Your task to perform on an android device: open app "Truecaller" (install if not already installed) Image 0: 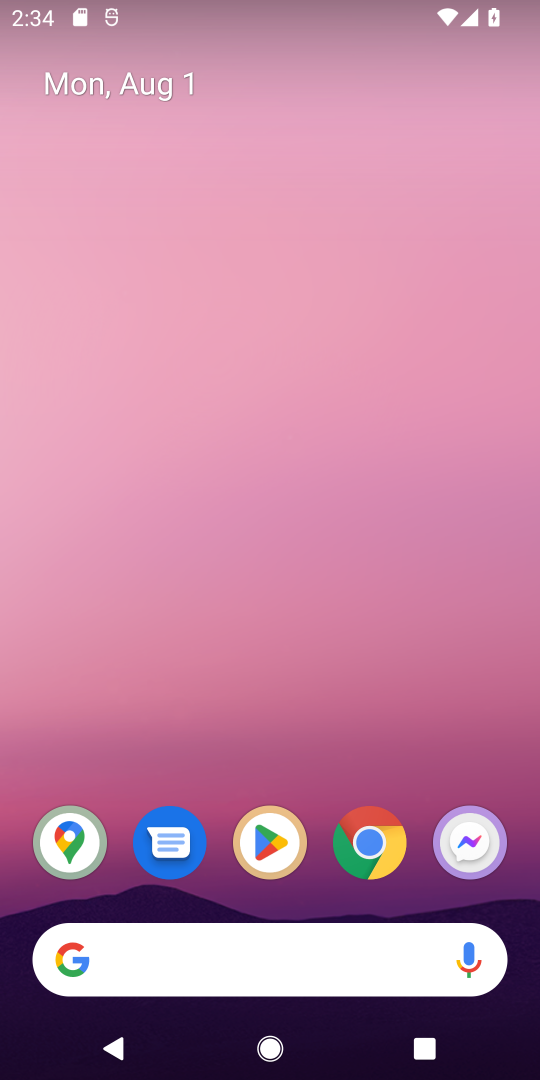
Step 0: click (288, 863)
Your task to perform on an android device: open app "Truecaller" (install if not already installed) Image 1: 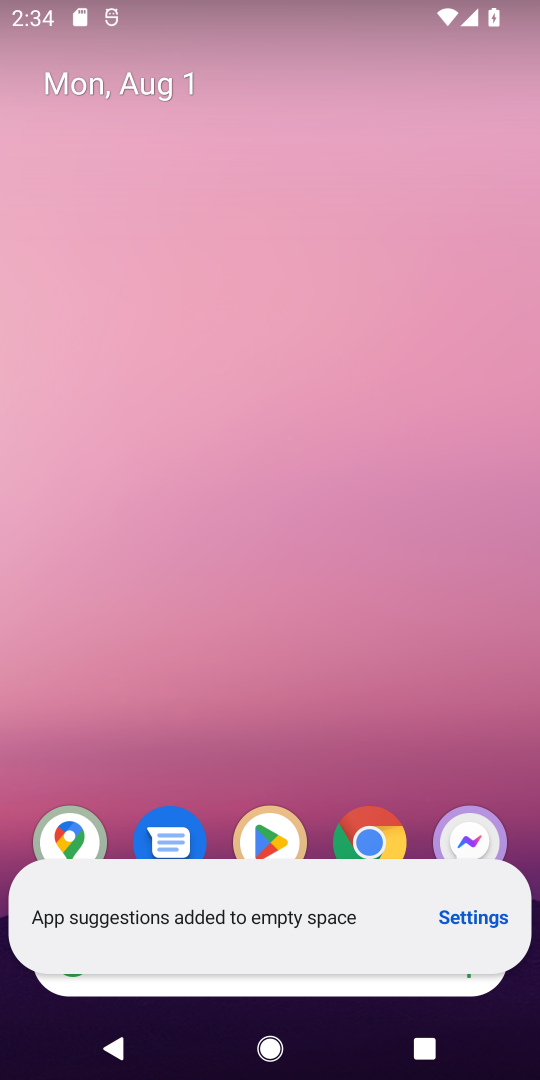
Step 1: click (274, 834)
Your task to perform on an android device: open app "Truecaller" (install if not already installed) Image 2: 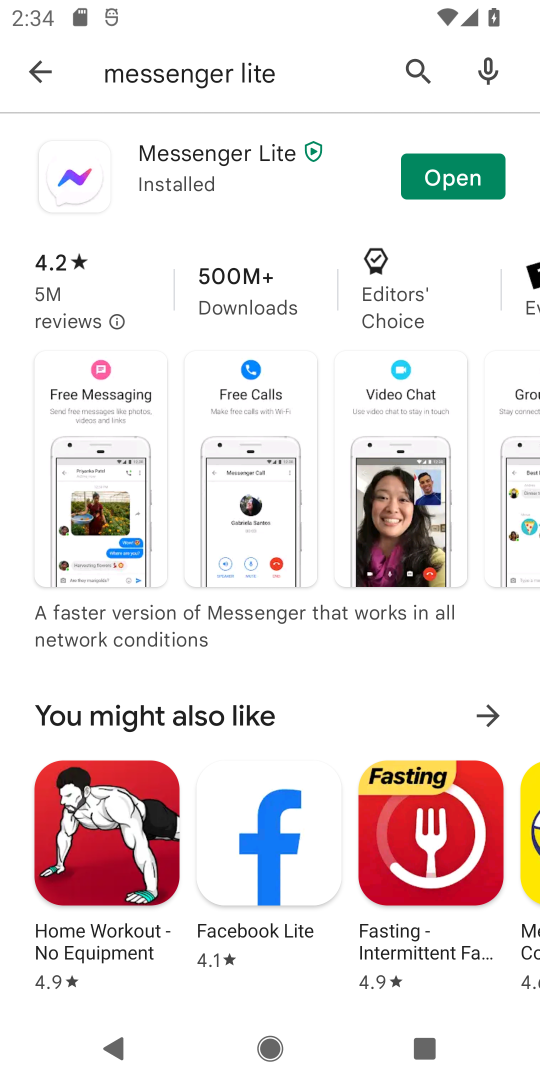
Step 2: click (208, 75)
Your task to perform on an android device: open app "Truecaller" (install if not already installed) Image 3: 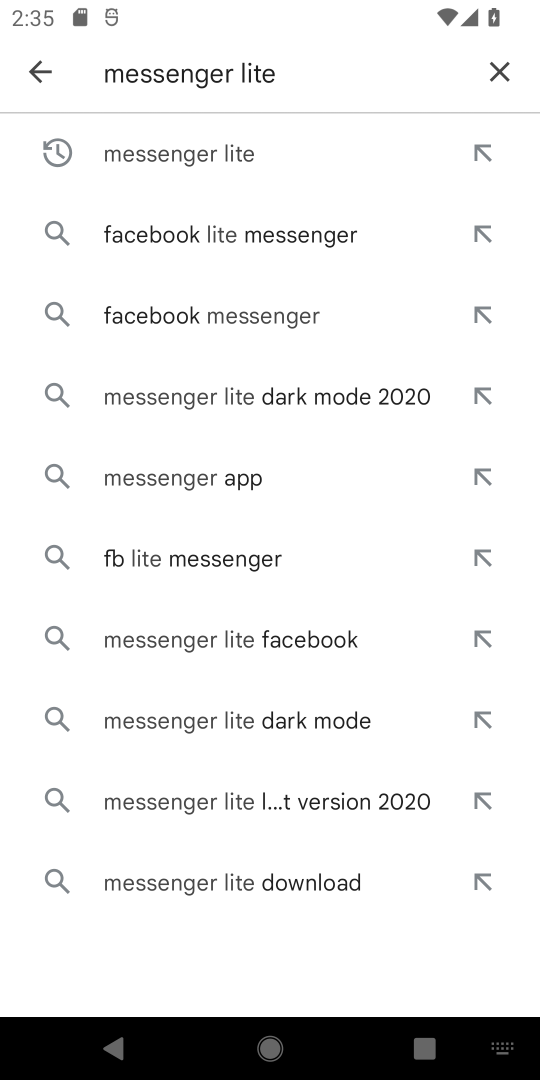
Step 3: click (506, 62)
Your task to perform on an android device: open app "Truecaller" (install if not already installed) Image 4: 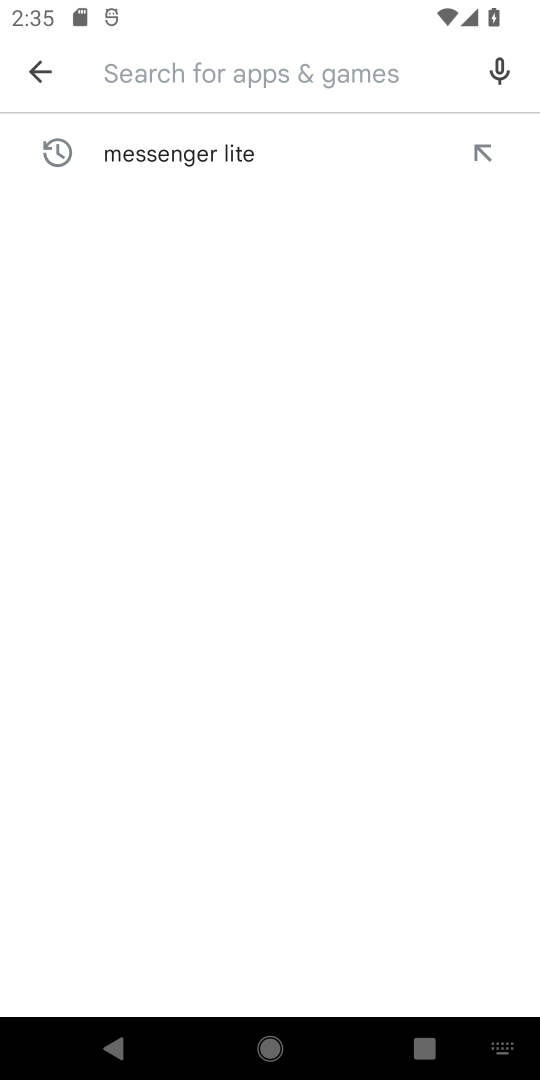
Step 4: type "truecaller"
Your task to perform on an android device: open app "Truecaller" (install if not already installed) Image 5: 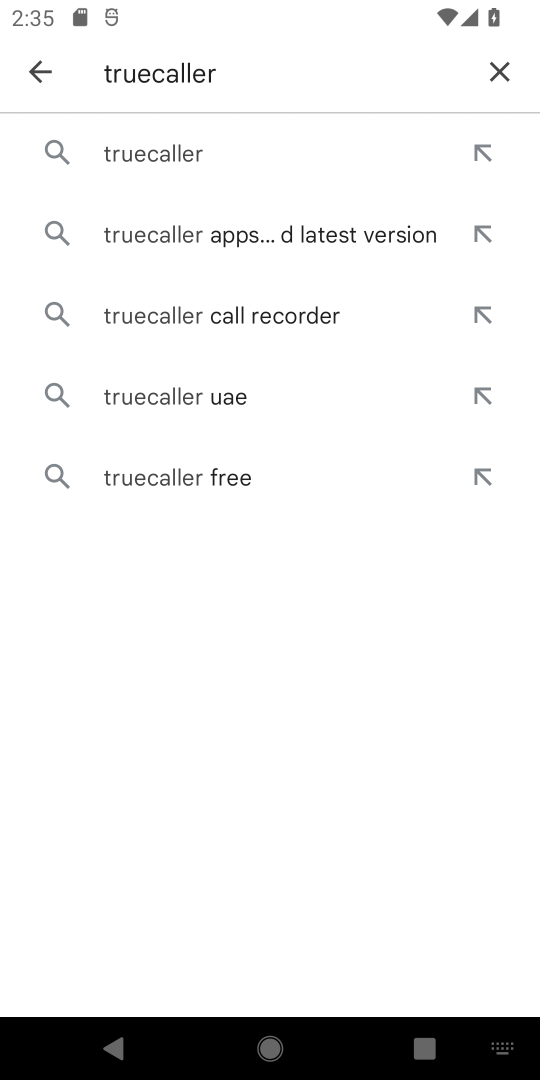
Step 5: click (209, 170)
Your task to perform on an android device: open app "Truecaller" (install if not already installed) Image 6: 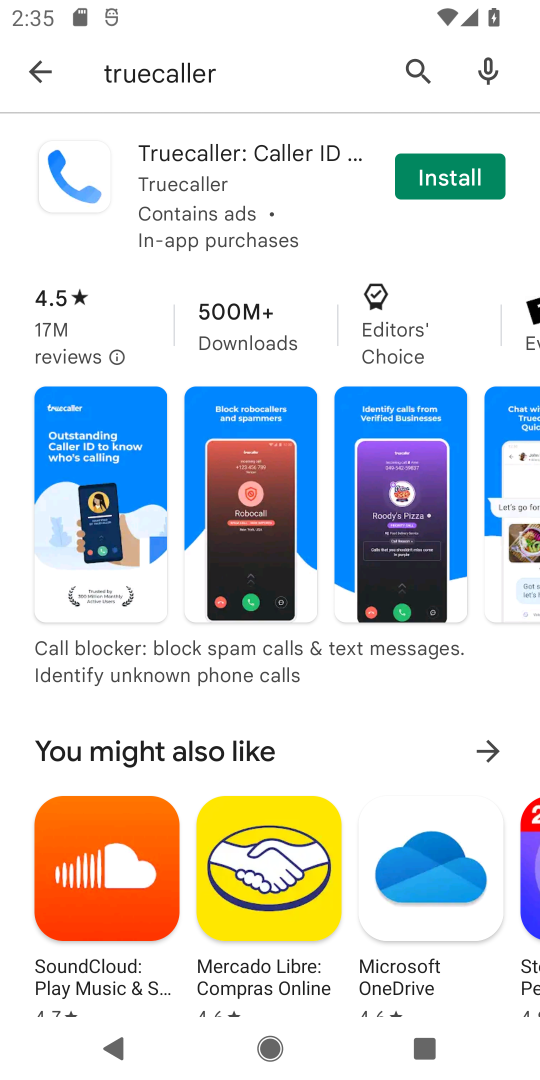
Step 6: click (490, 181)
Your task to perform on an android device: open app "Truecaller" (install if not already installed) Image 7: 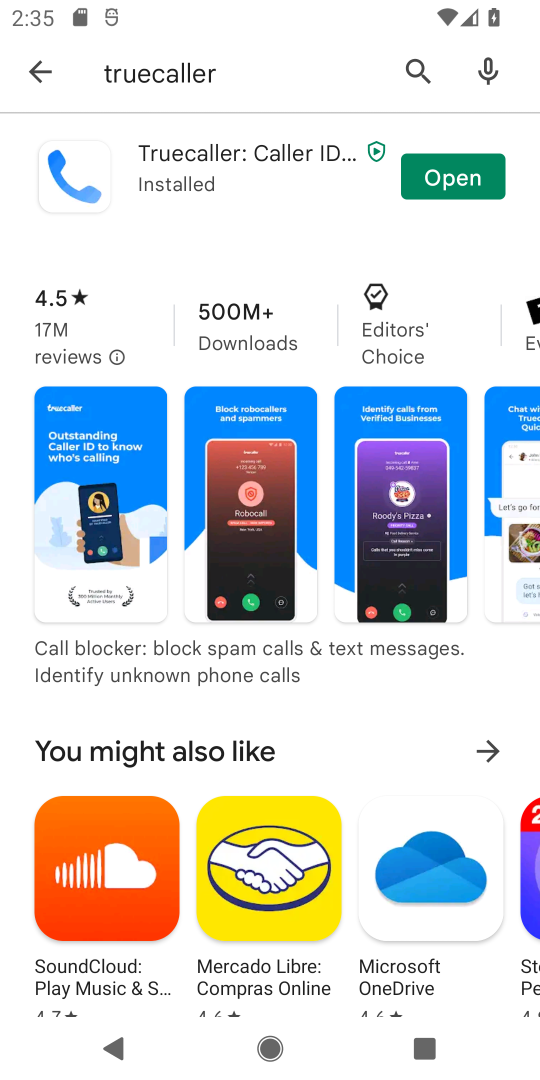
Step 7: click (439, 177)
Your task to perform on an android device: open app "Truecaller" (install if not already installed) Image 8: 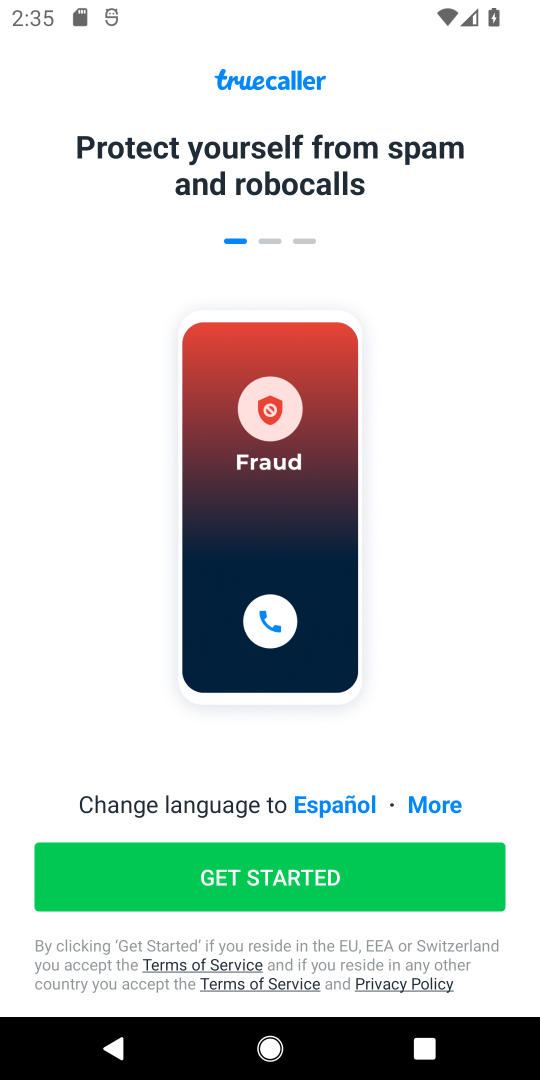
Step 8: click (300, 884)
Your task to perform on an android device: open app "Truecaller" (install if not already installed) Image 9: 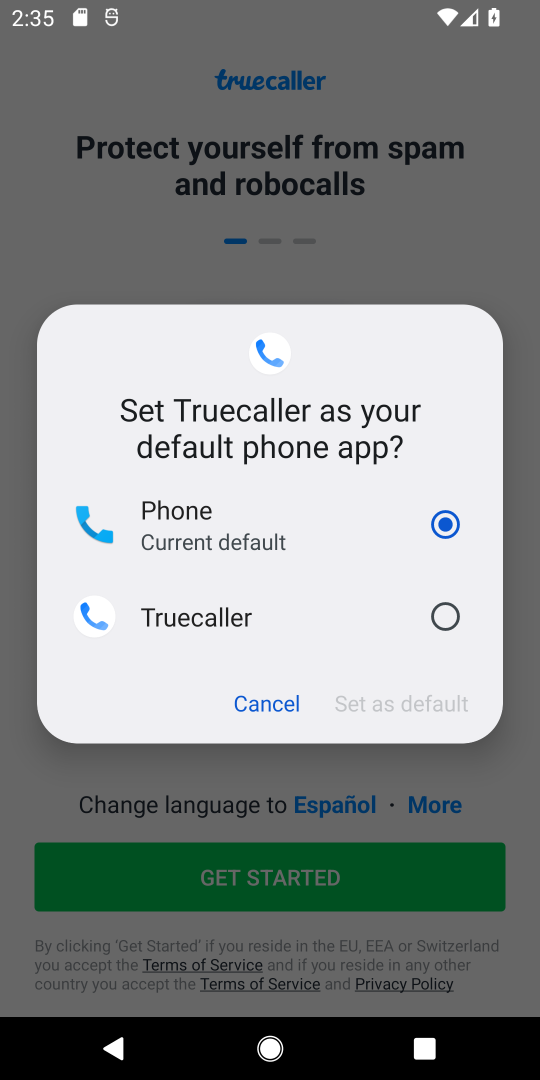
Step 9: click (240, 613)
Your task to perform on an android device: open app "Truecaller" (install if not already installed) Image 10: 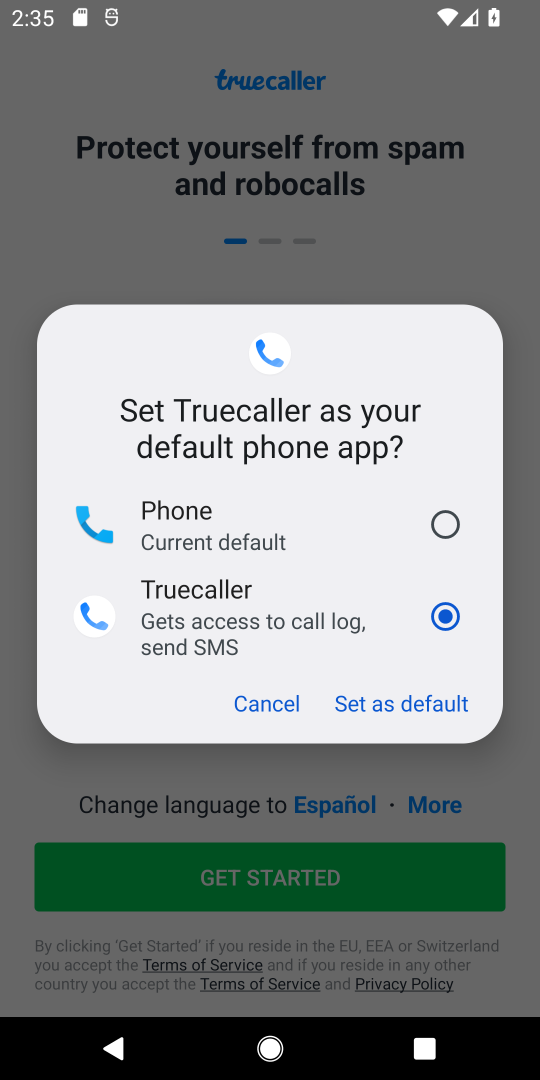
Step 10: click (435, 708)
Your task to perform on an android device: open app "Truecaller" (install if not already installed) Image 11: 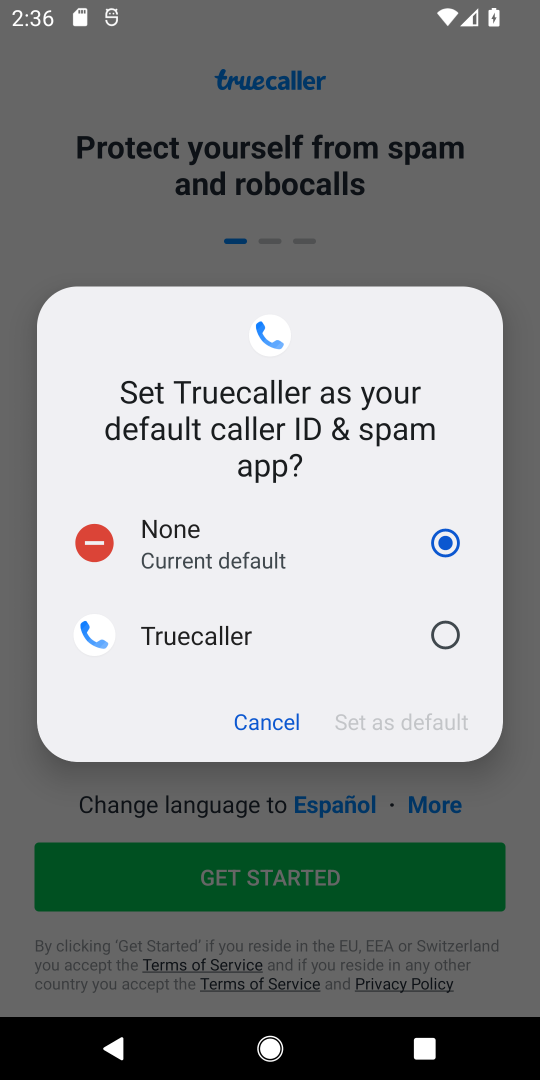
Step 11: click (361, 632)
Your task to perform on an android device: open app "Truecaller" (install if not already installed) Image 12: 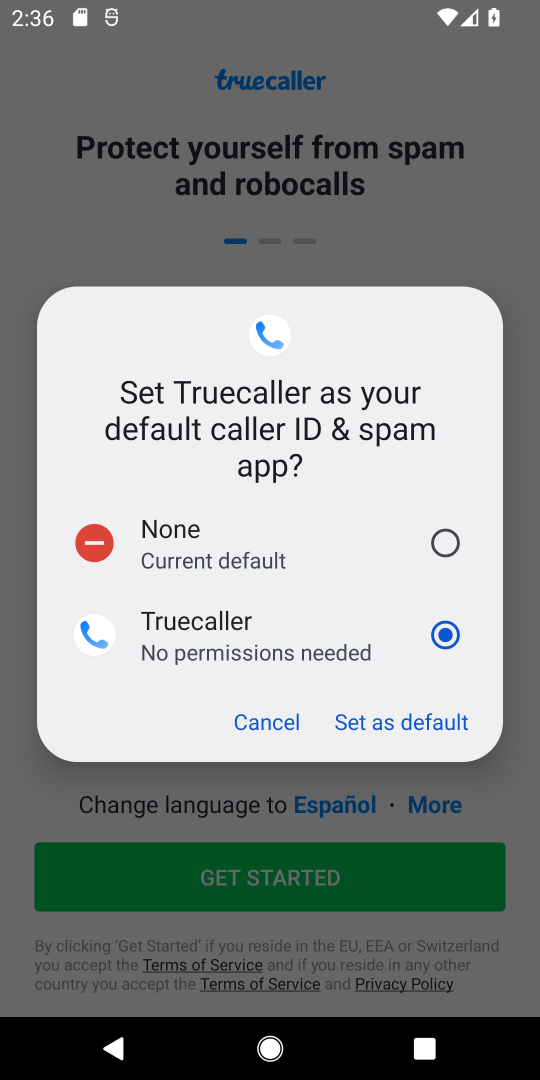
Step 12: click (387, 722)
Your task to perform on an android device: open app "Truecaller" (install if not already installed) Image 13: 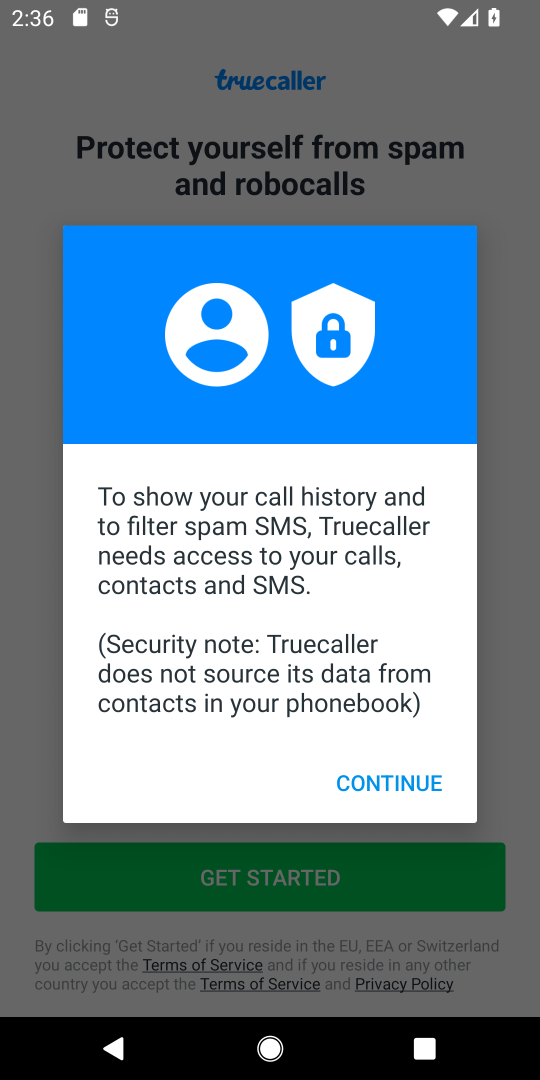
Step 13: click (379, 895)
Your task to perform on an android device: open app "Truecaller" (install if not already installed) Image 14: 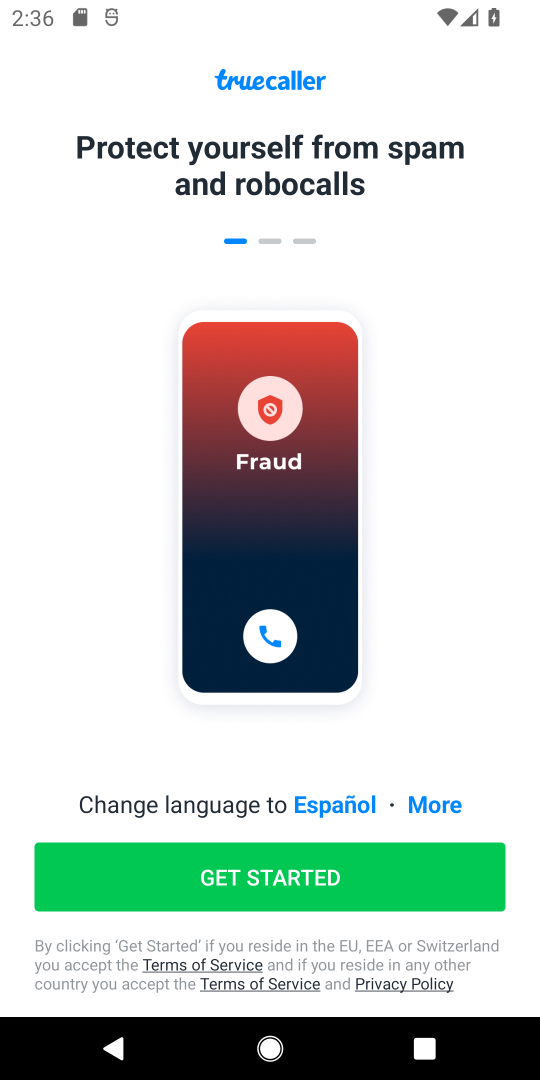
Step 14: click (405, 759)
Your task to perform on an android device: open app "Truecaller" (install if not already installed) Image 15: 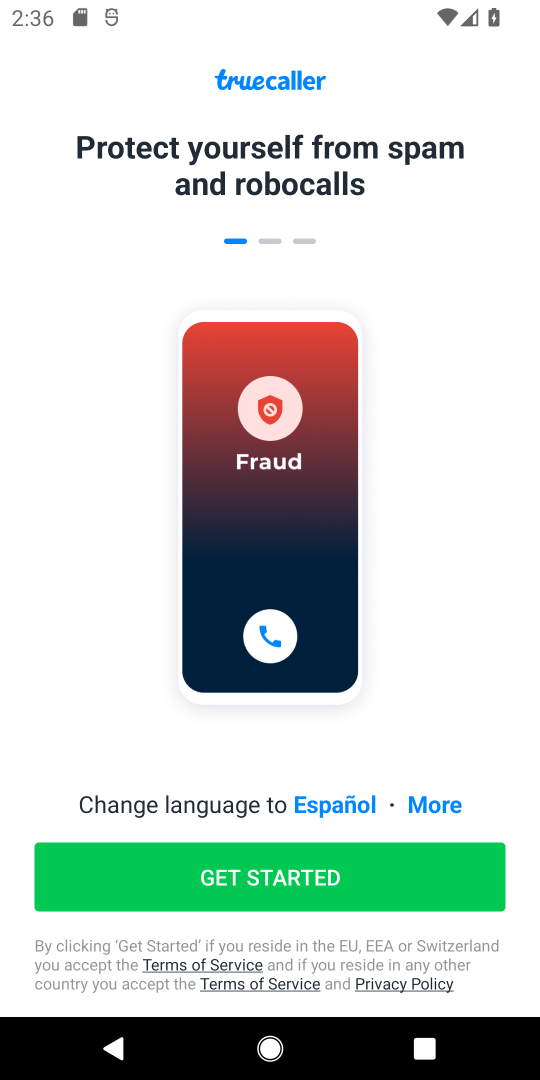
Step 15: click (385, 869)
Your task to perform on an android device: open app "Truecaller" (install if not already installed) Image 16: 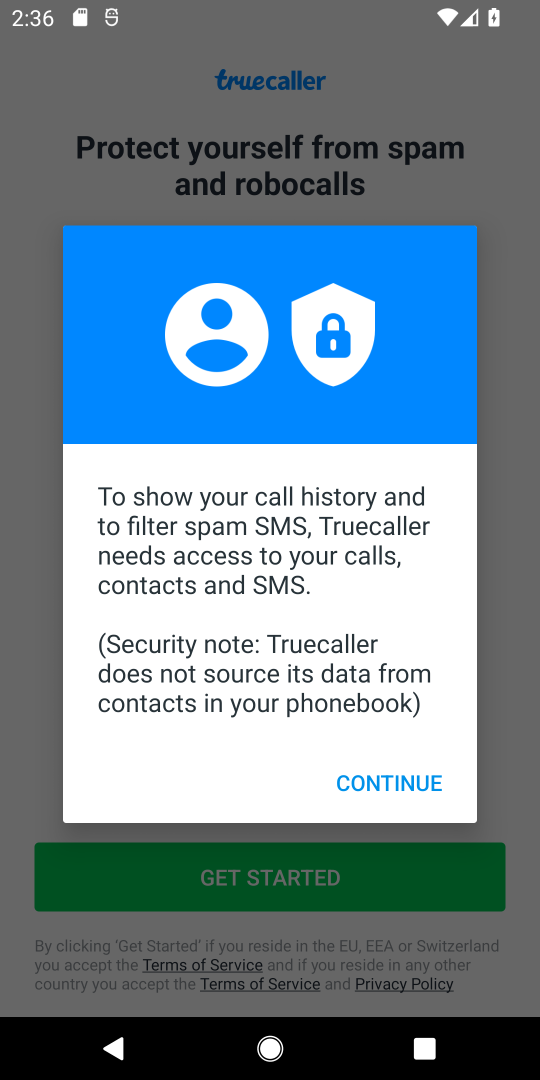
Step 16: click (385, 793)
Your task to perform on an android device: open app "Truecaller" (install if not already installed) Image 17: 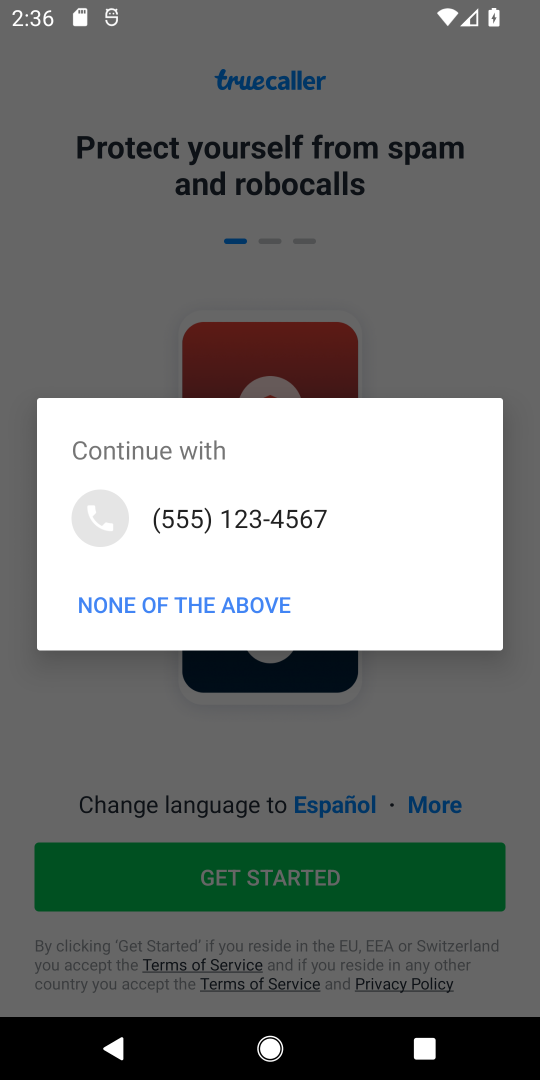
Step 17: click (245, 539)
Your task to perform on an android device: open app "Truecaller" (install if not already installed) Image 18: 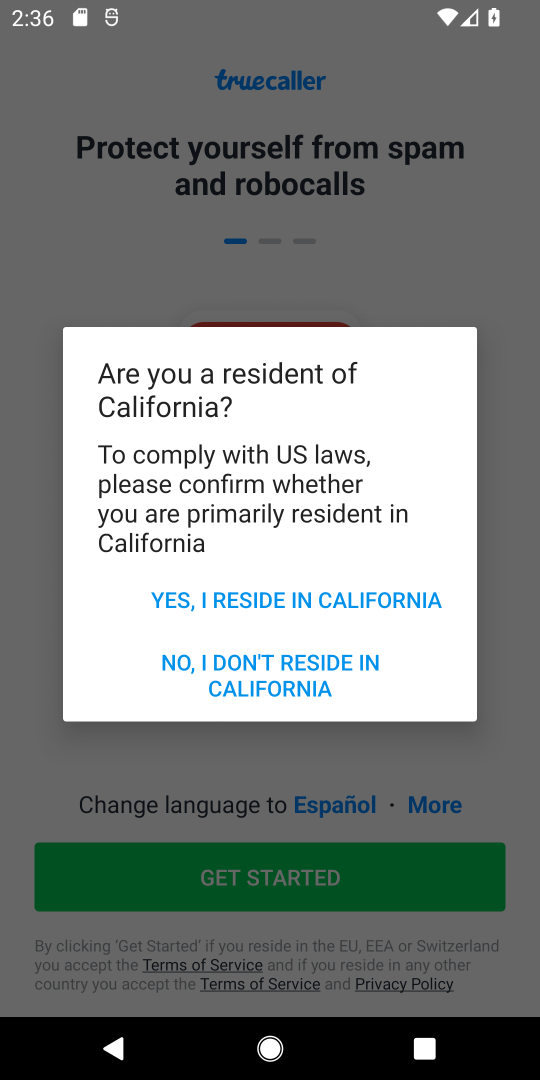
Step 18: click (286, 604)
Your task to perform on an android device: open app "Truecaller" (install if not already installed) Image 19: 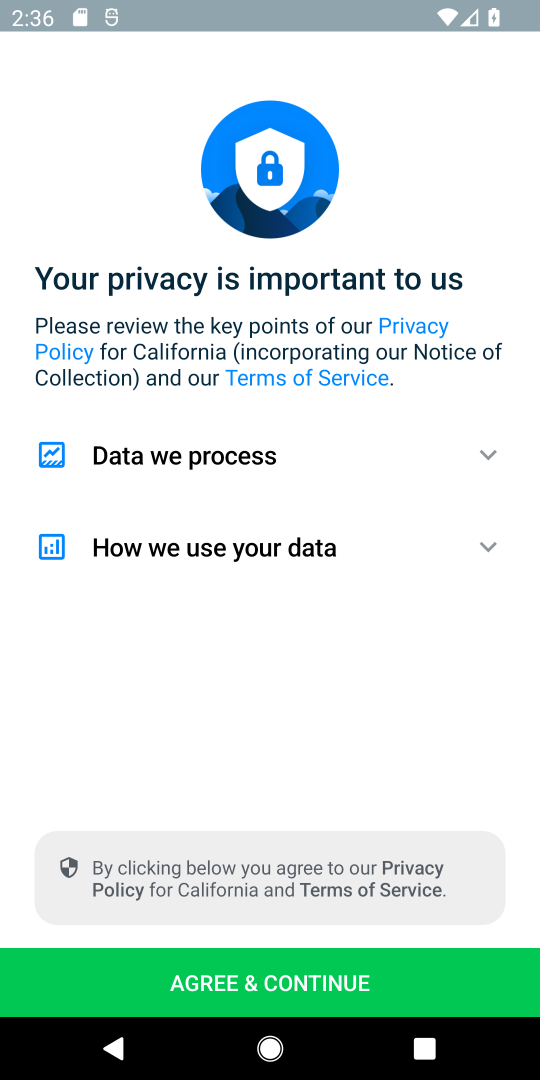
Step 19: click (289, 987)
Your task to perform on an android device: open app "Truecaller" (install if not already installed) Image 20: 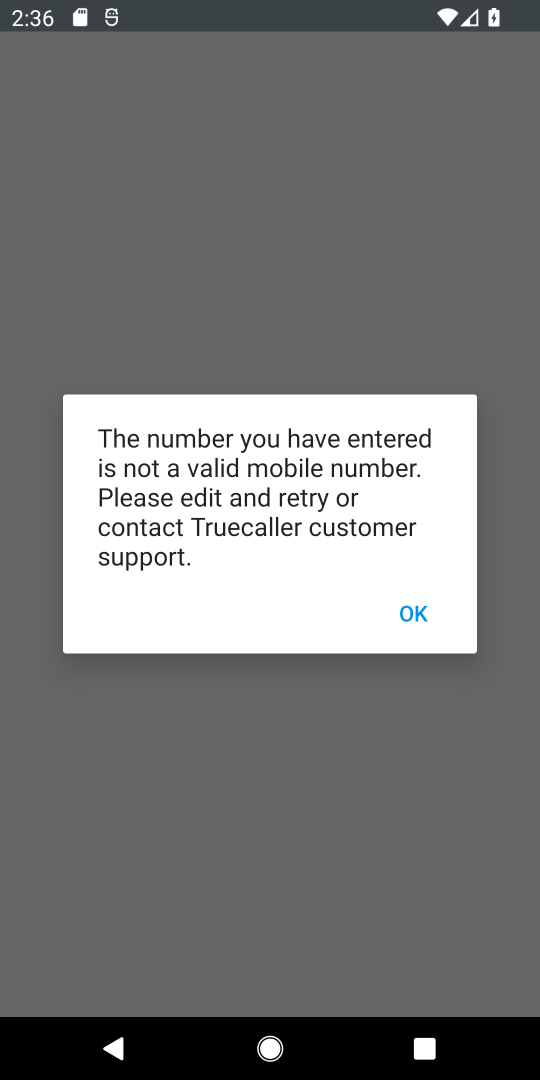
Step 20: click (427, 604)
Your task to perform on an android device: open app "Truecaller" (install if not already installed) Image 21: 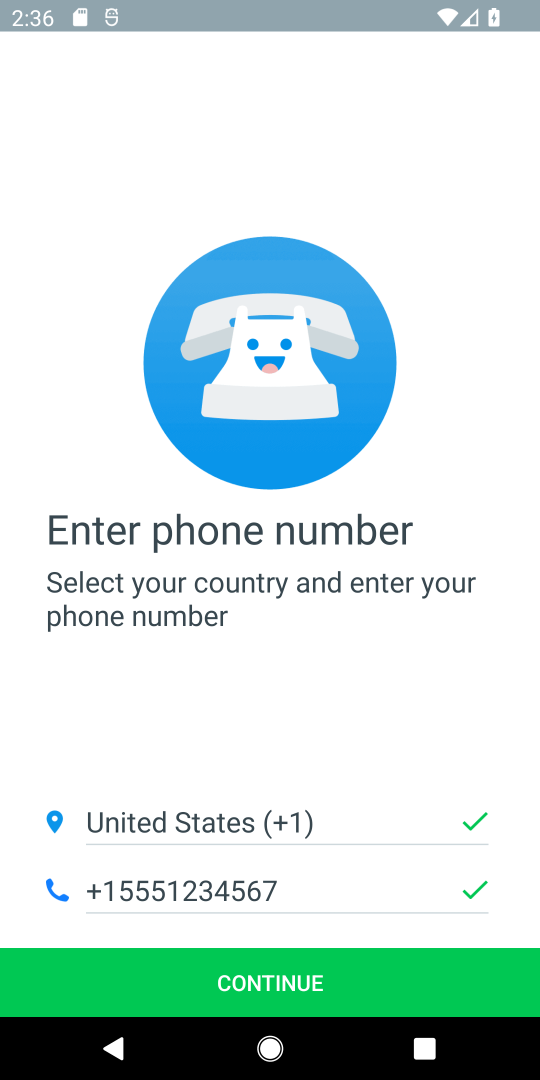
Step 21: task complete